Your task to perform on an android device: visit the assistant section in the google photos Image 0: 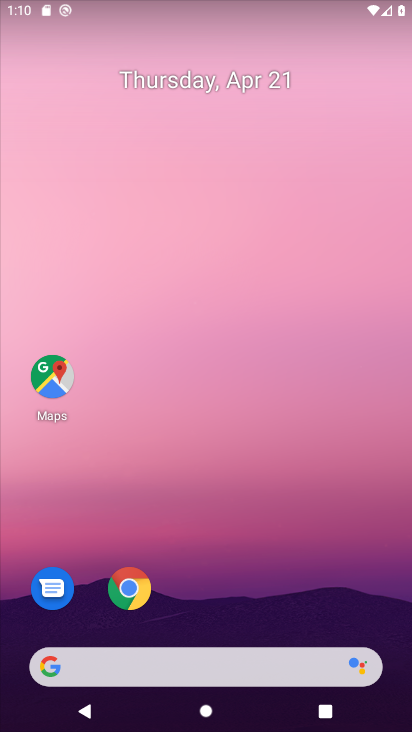
Step 0: drag from (169, 649) to (327, 199)
Your task to perform on an android device: visit the assistant section in the google photos Image 1: 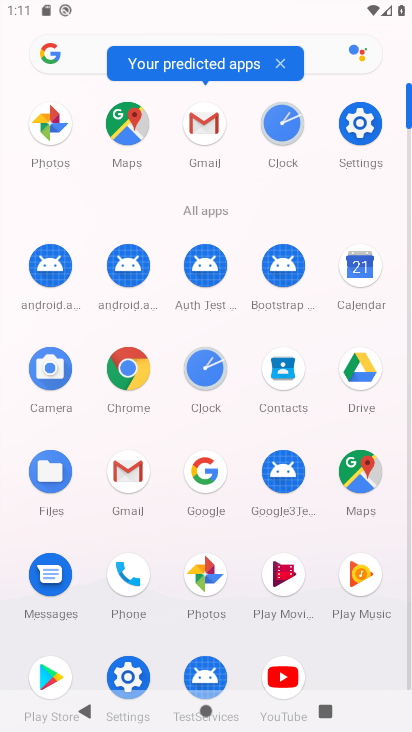
Step 1: click (189, 559)
Your task to perform on an android device: visit the assistant section in the google photos Image 2: 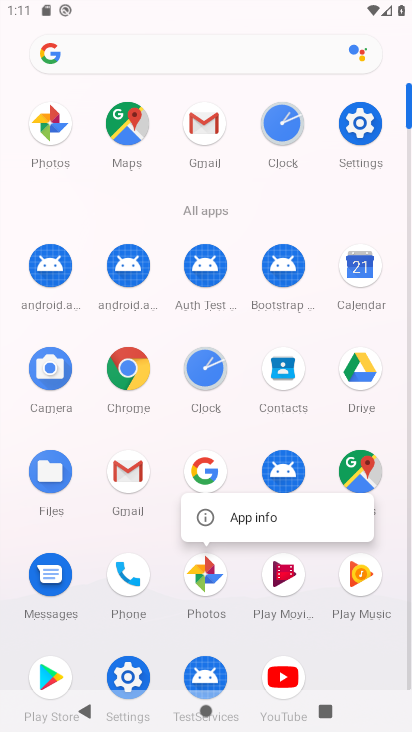
Step 2: click (200, 575)
Your task to perform on an android device: visit the assistant section in the google photos Image 3: 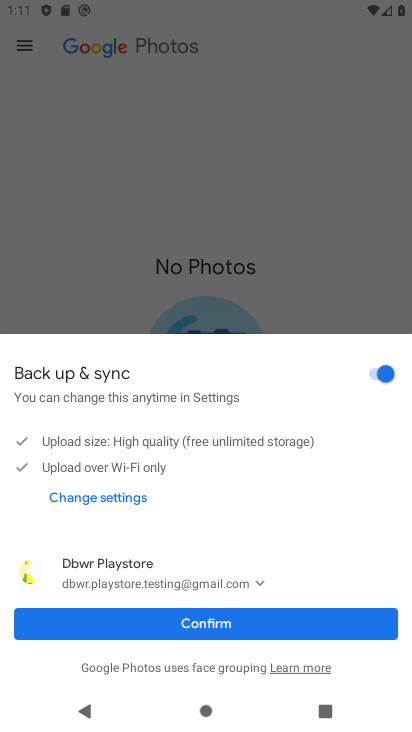
Step 3: click (257, 620)
Your task to perform on an android device: visit the assistant section in the google photos Image 4: 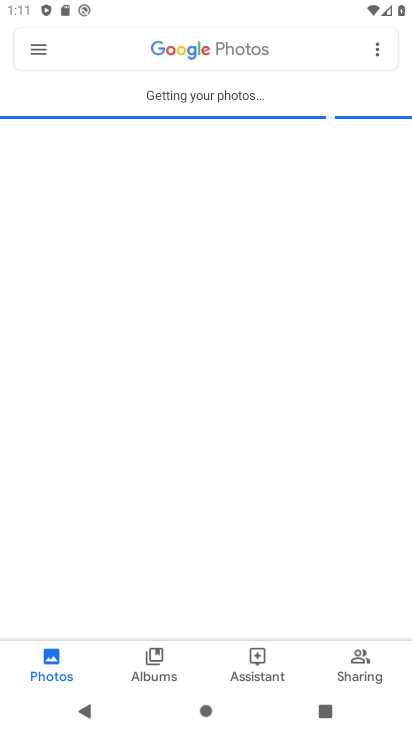
Step 4: click (275, 672)
Your task to perform on an android device: visit the assistant section in the google photos Image 5: 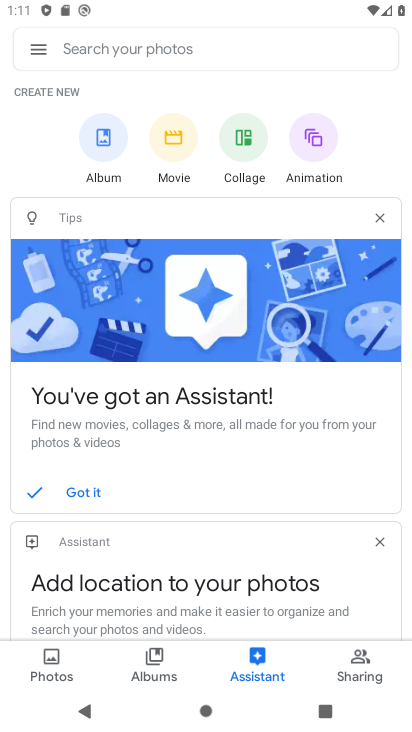
Step 5: task complete